Your task to perform on an android device: Open Chrome and go to settings Image 0: 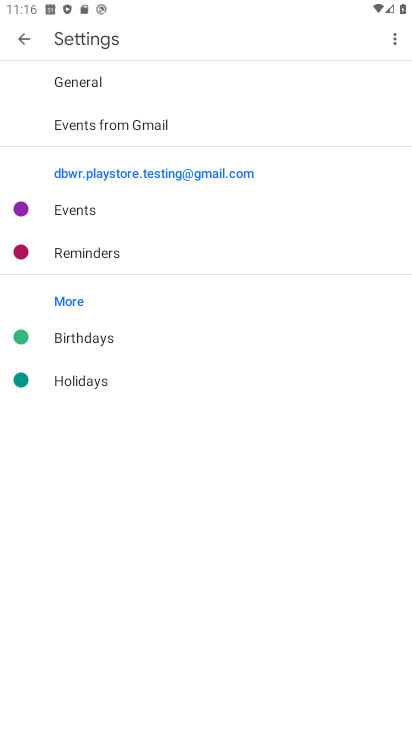
Step 0: press home button
Your task to perform on an android device: Open Chrome and go to settings Image 1: 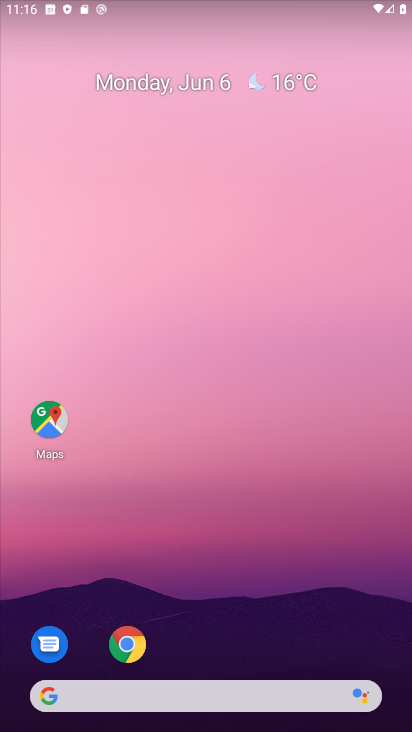
Step 1: drag from (240, 531) to (245, 128)
Your task to perform on an android device: Open Chrome and go to settings Image 2: 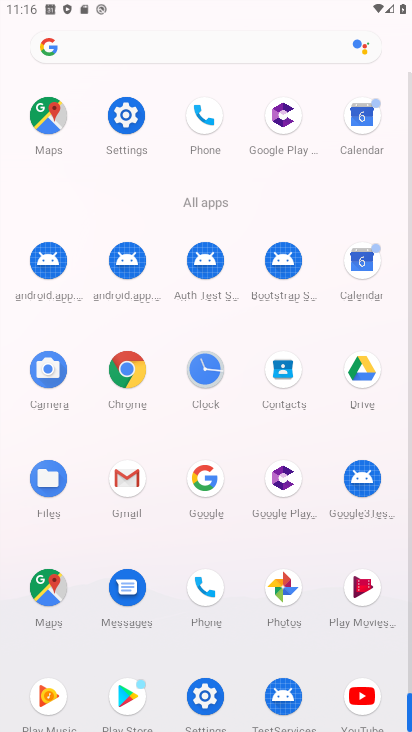
Step 2: click (107, 375)
Your task to perform on an android device: Open Chrome and go to settings Image 3: 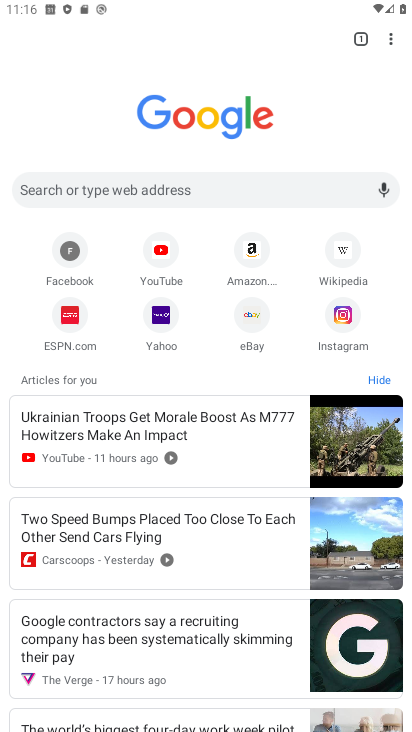
Step 3: click (391, 44)
Your task to perform on an android device: Open Chrome and go to settings Image 4: 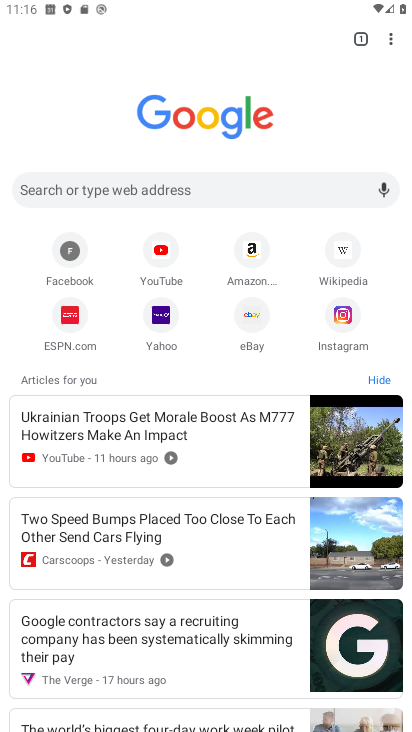
Step 4: click (391, 44)
Your task to perform on an android device: Open Chrome and go to settings Image 5: 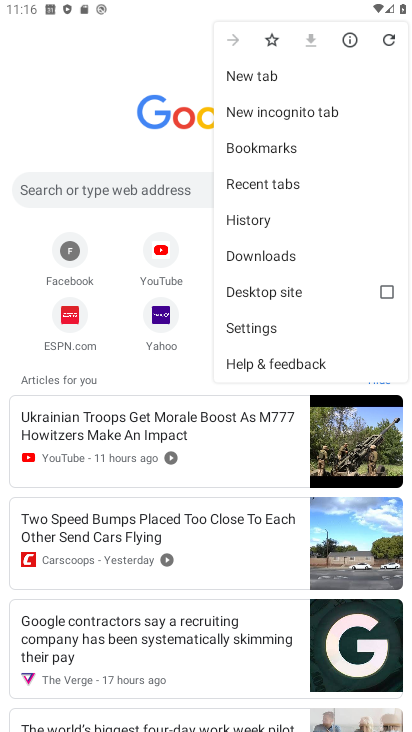
Step 5: click (271, 331)
Your task to perform on an android device: Open Chrome and go to settings Image 6: 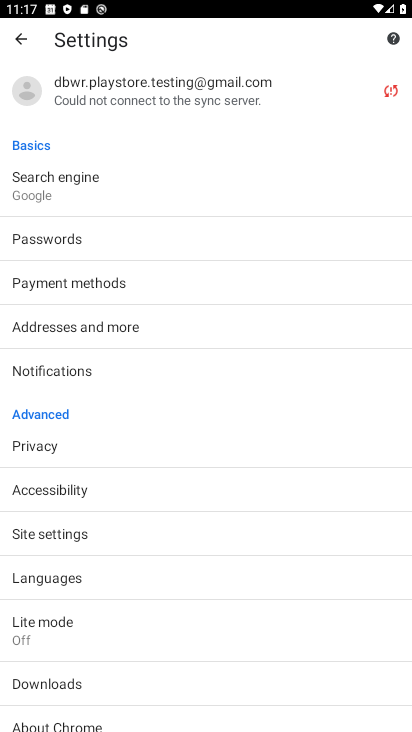
Step 6: task complete